Your task to perform on an android device: change the clock display to digital Image 0: 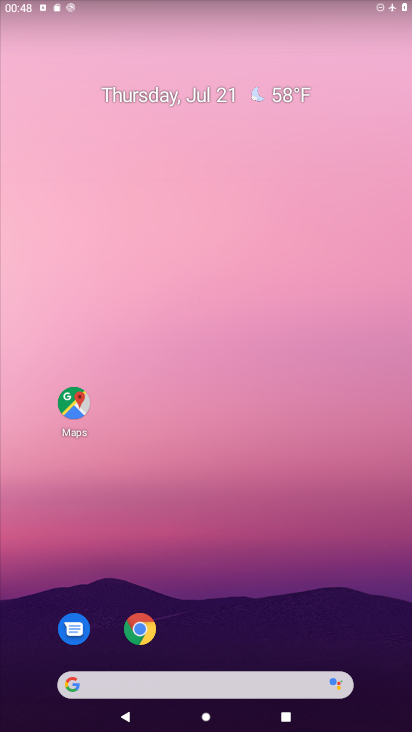
Step 0: drag from (222, 617) to (224, 167)
Your task to perform on an android device: change the clock display to digital Image 1: 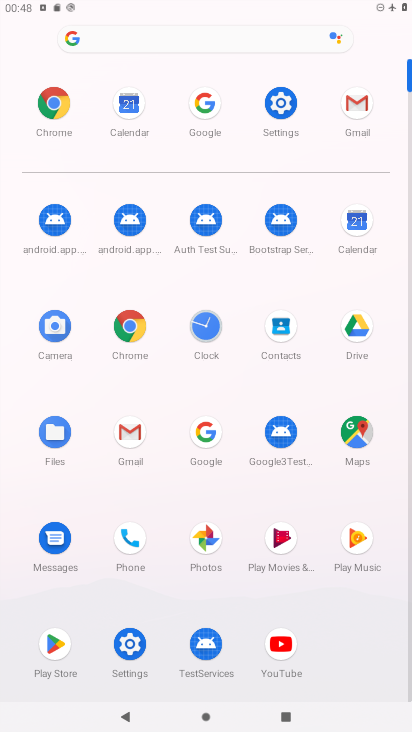
Step 1: click (198, 327)
Your task to perform on an android device: change the clock display to digital Image 2: 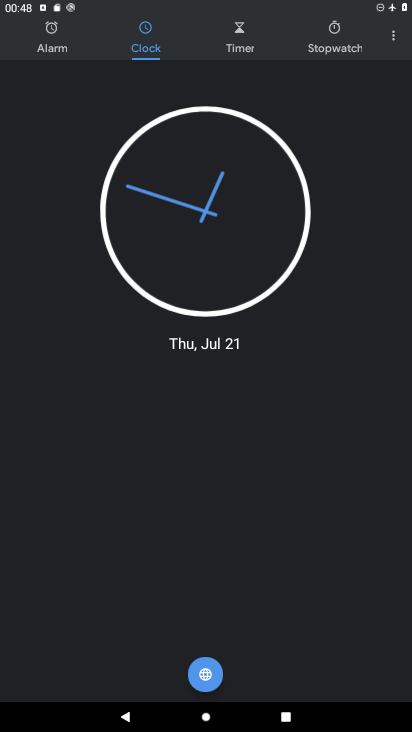
Step 2: click (395, 33)
Your task to perform on an android device: change the clock display to digital Image 3: 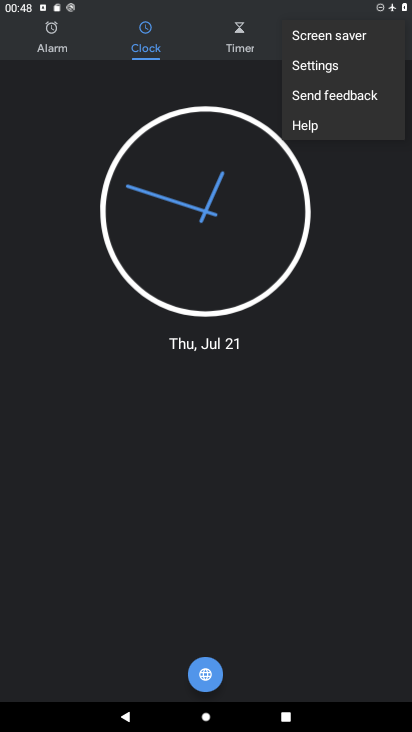
Step 3: click (347, 66)
Your task to perform on an android device: change the clock display to digital Image 4: 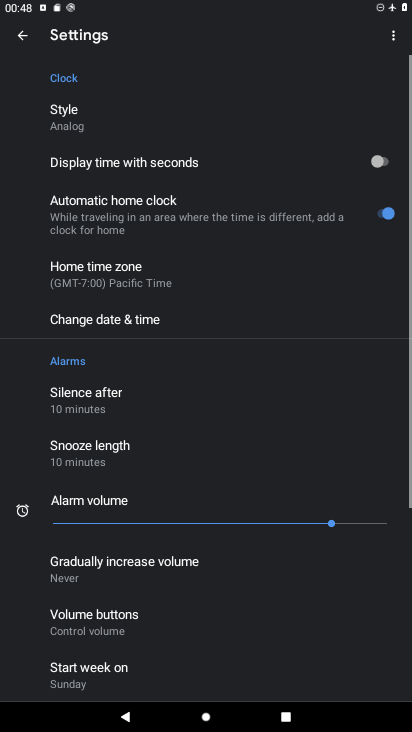
Step 4: click (103, 124)
Your task to perform on an android device: change the clock display to digital Image 5: 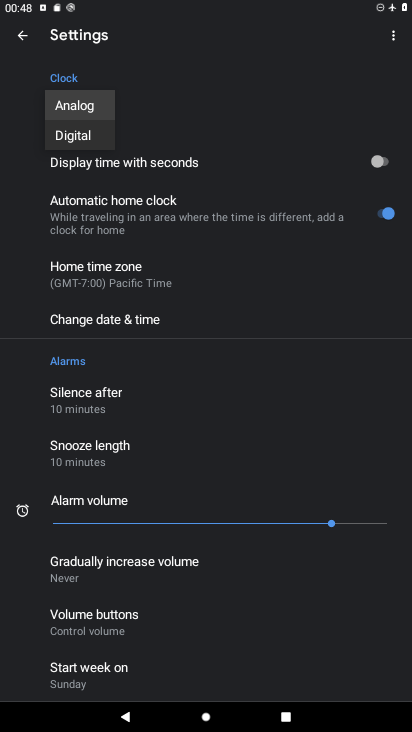
Step 5: click (94, 130)
Your task to perform on an android device: change the clock display to digital Image 6: 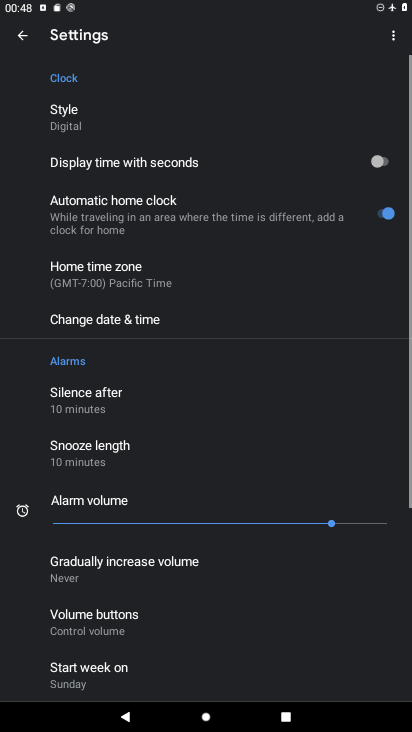
Step 6: task complete